Your task to perform on an android device: Search for hotels in Miami Image 0: 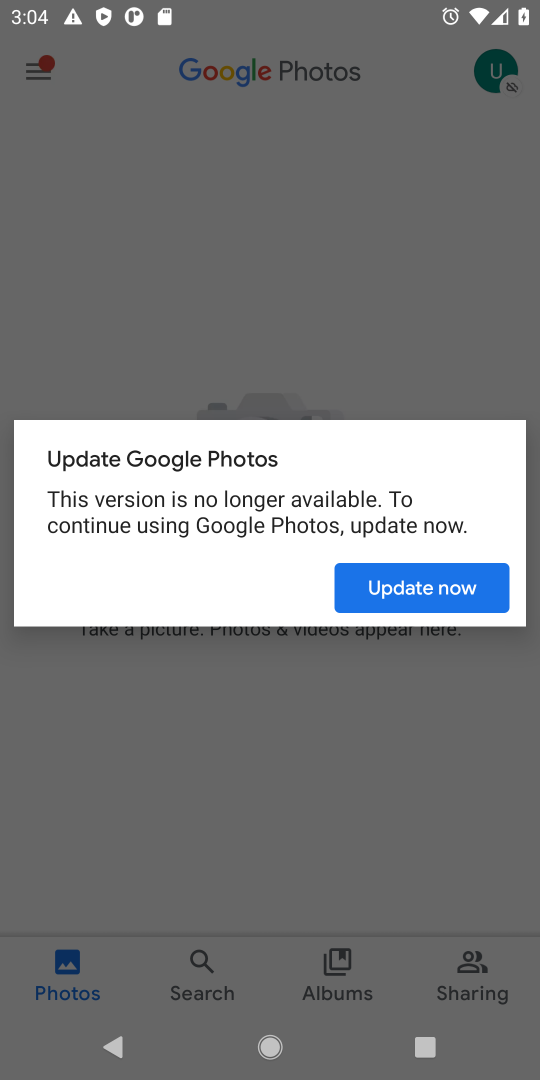
Step 0: press home button
Your task to perform on an android device: Search for hotels in Miami Image 1: 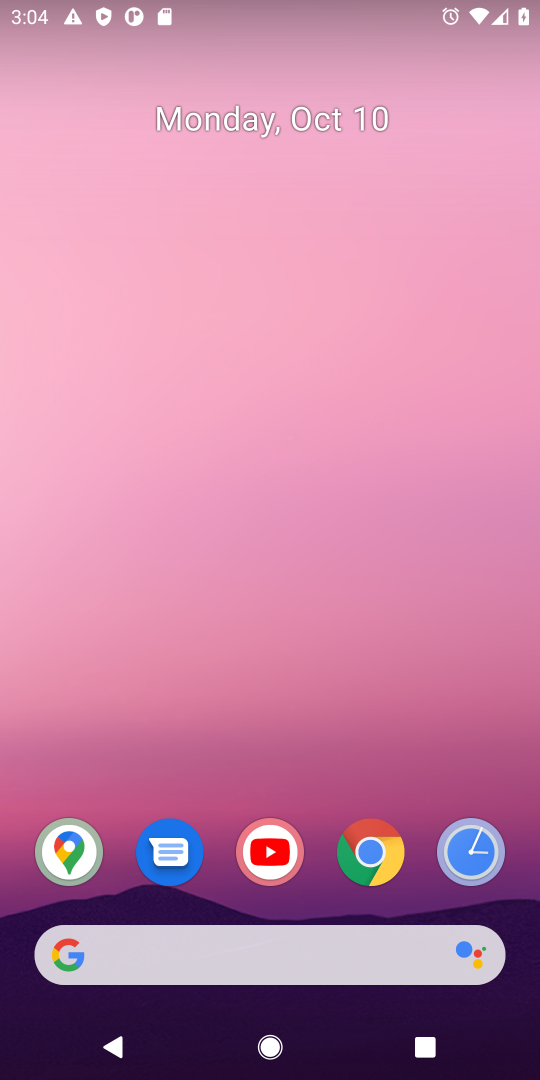
Step 1: click (242, 959)
Your task to perform on an android device: Search for hotels in Miami Image 2: 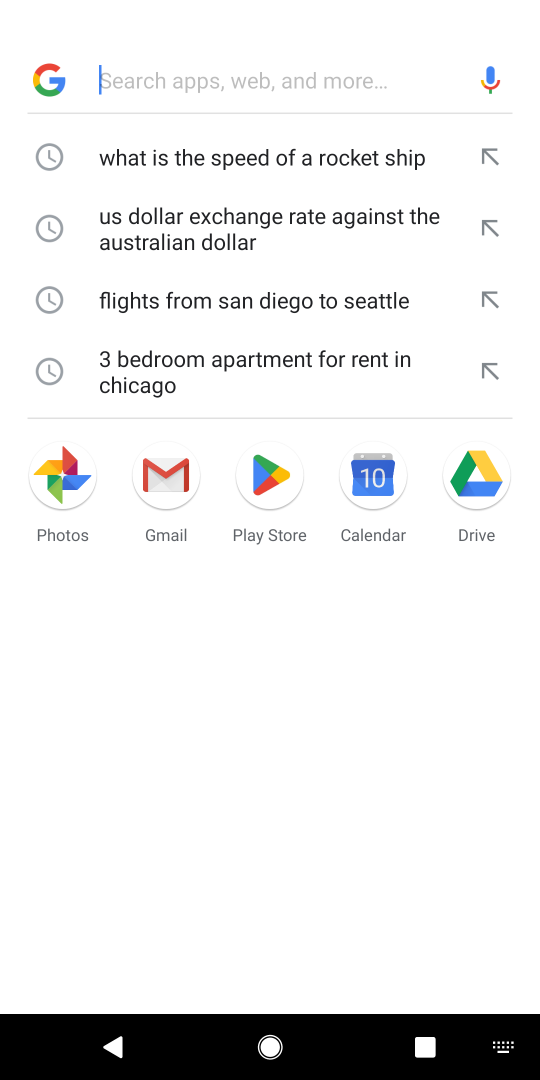
Step 2: type "hotels in Miami"
Your task to perform on an android device: Search for hotels in Miami Image 3: 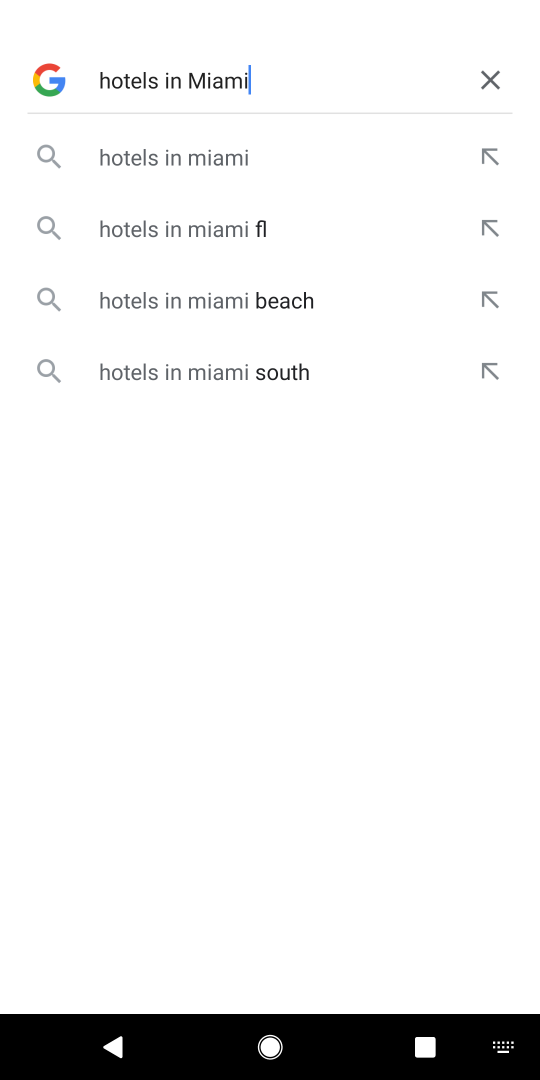
Step 3: type ""
Your task to perform on an android device: Search for hotels in Miami Image 4: 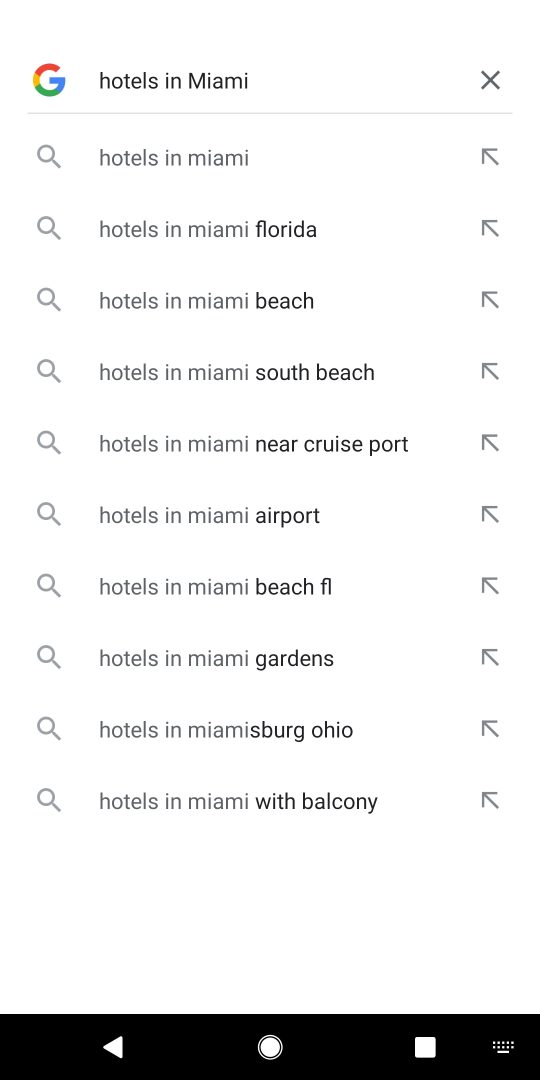
Step 4: click (191, 143)
Your task to perform on an android device: Search for hotels in Miami Image 5: 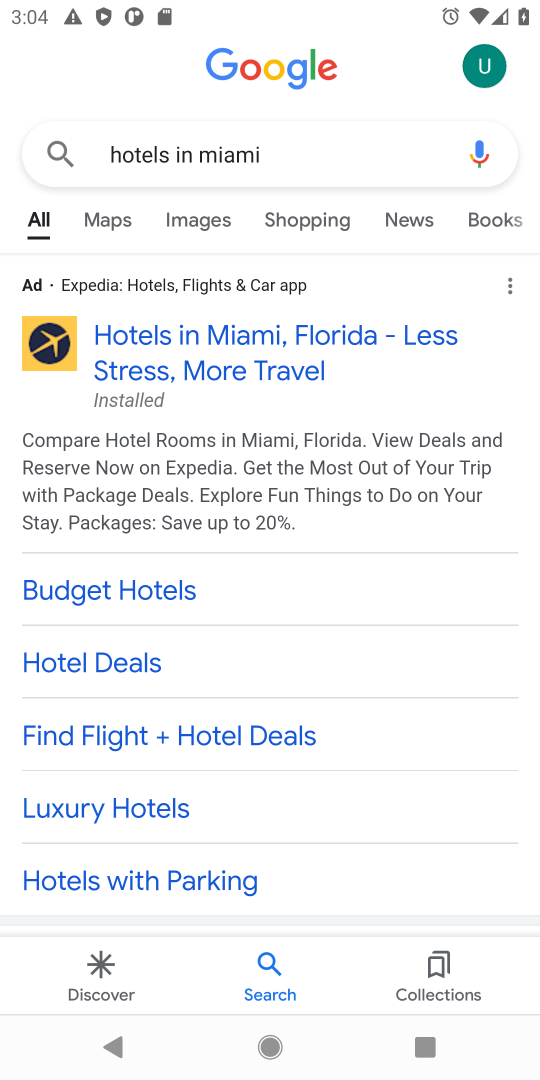
Step 5: drag from (184, 690) to (310, 189)
Your task to perform on an android device: Search for hotels in Miami Image 6: 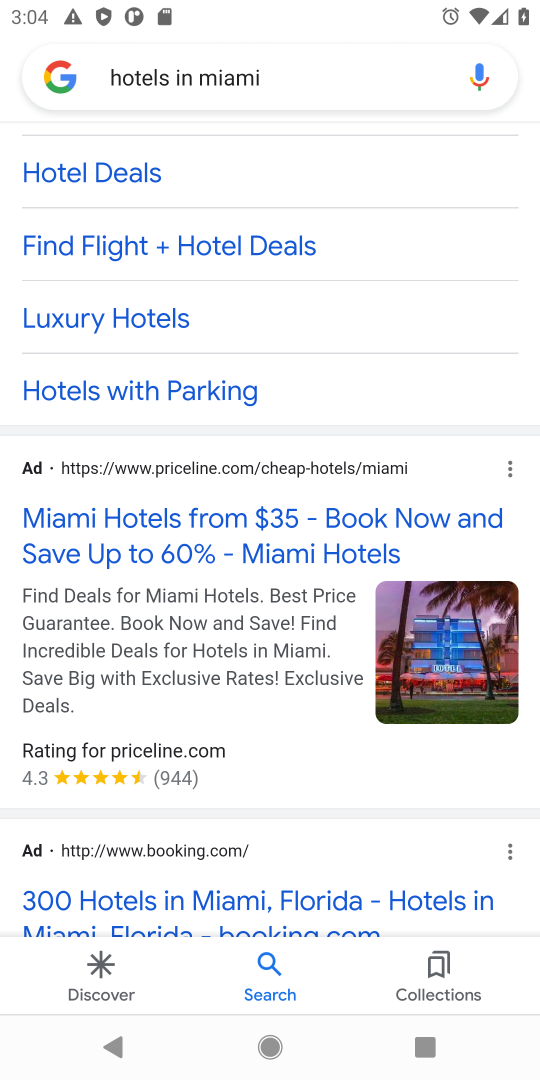
Step 6: drag from (235, 763) to (294, 374)
Your task to perform on an android device: Search for hotels in Miami Image 7: 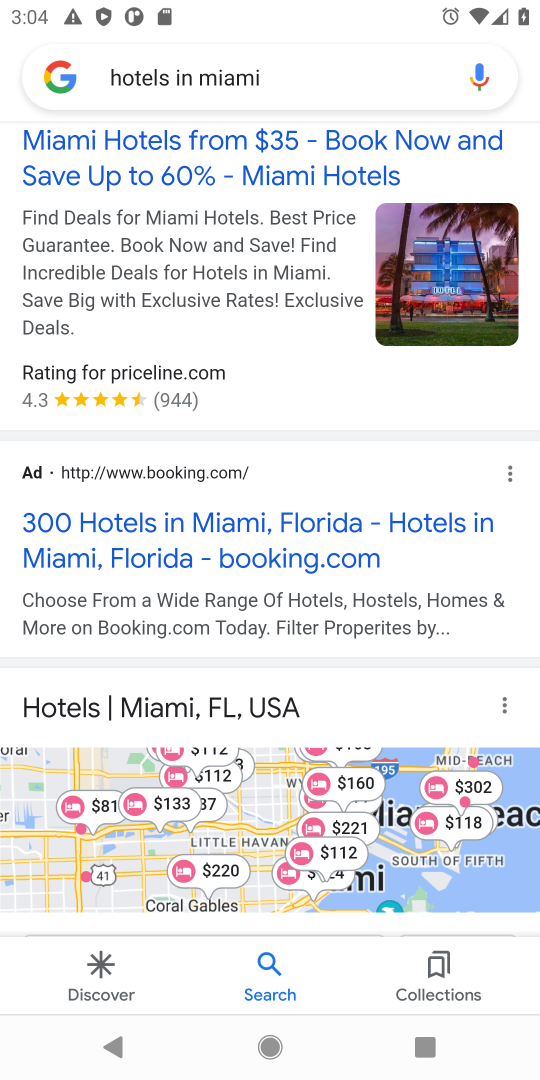
Step 7: drag from (250, 713) to (255, 235)
Your task to perform on an android device: Search for hotels in Miami Image 8: 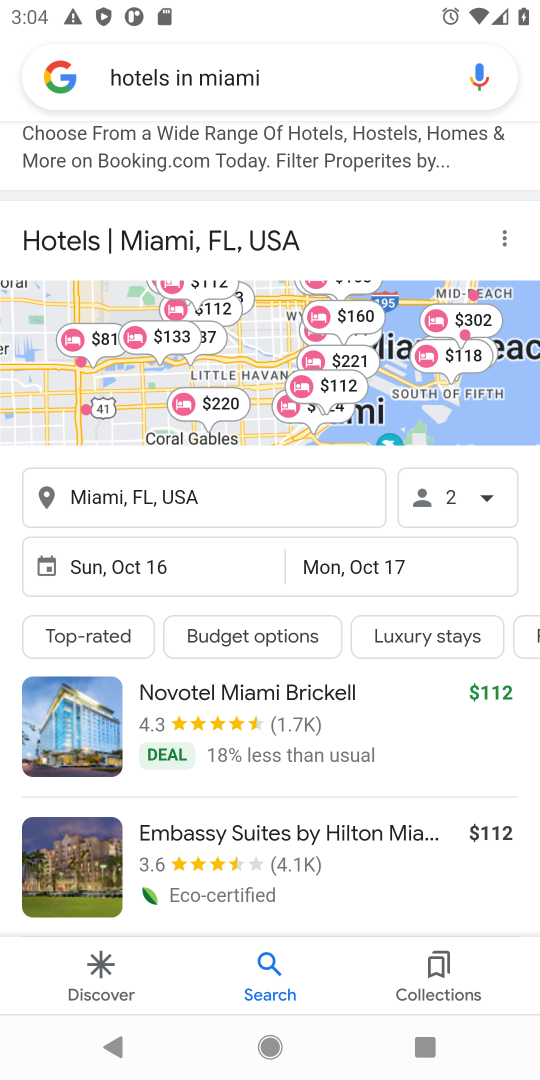
Step 8: drag from (222, 687) to (224, 270)
Your task to perform on an android device: Search for hotels in Miami Image 9: 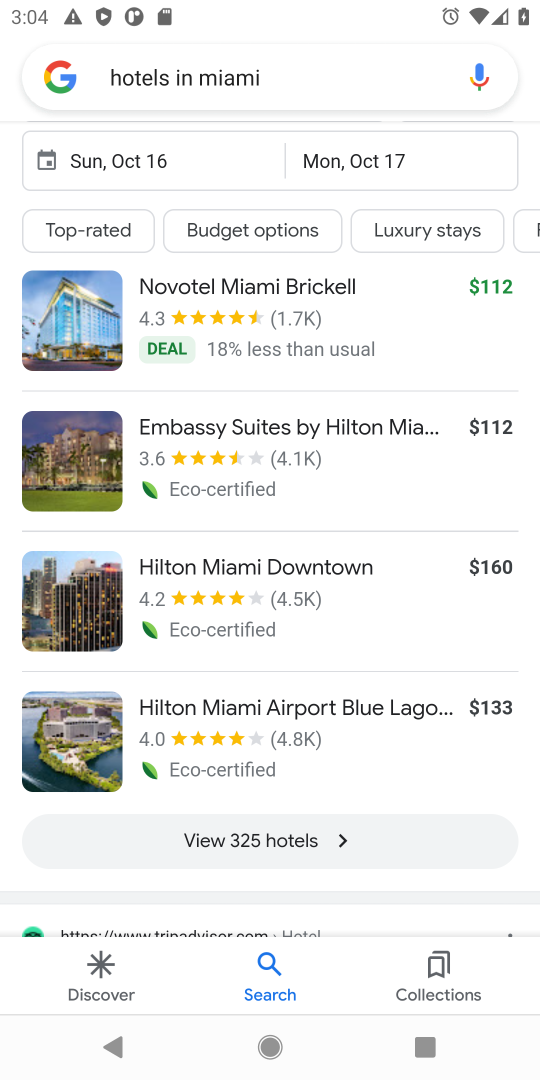
Step 9: drag from (227, 468) to (234, 336)
Your task to perform on an android device: Search for hotels in Miami Image 10: 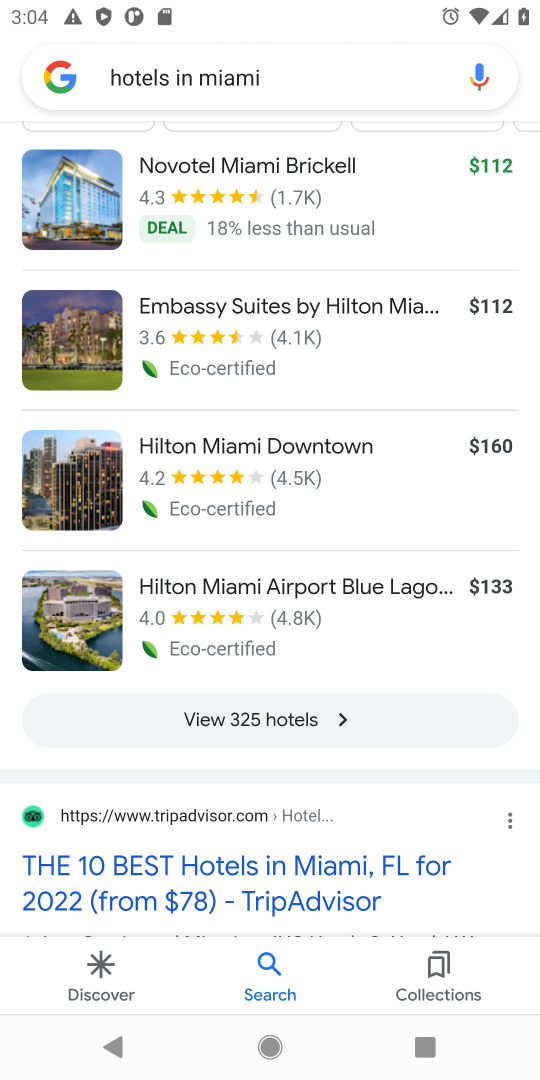
Step 10: drag from (238, 761) to (316, 244)
Your task to perform on an android device: Search for hotels in Miami Image 11: 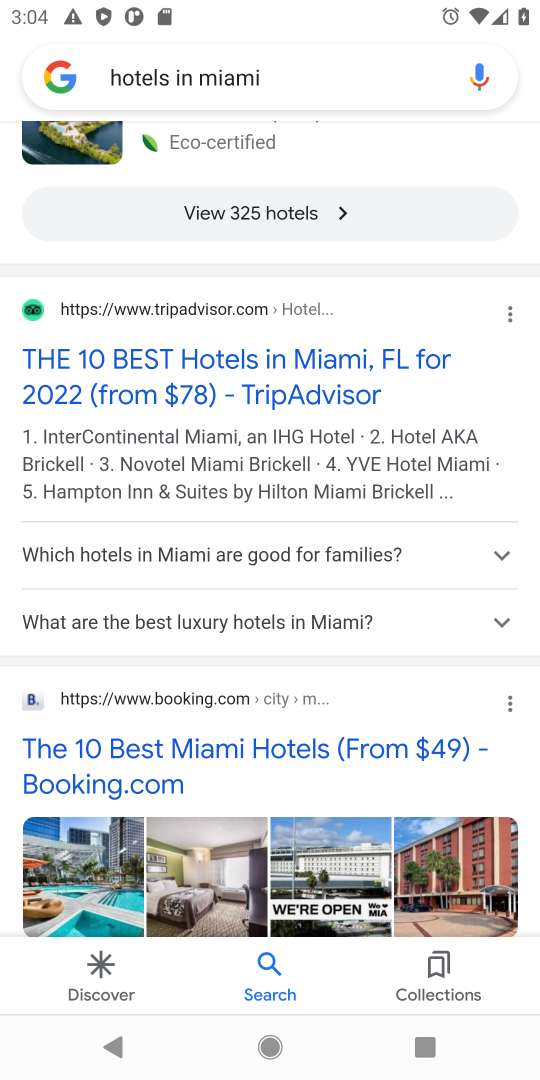
Step 11: click (283, 390)
Your task to perform on an android device: Search for hotels in Miami Image 12: 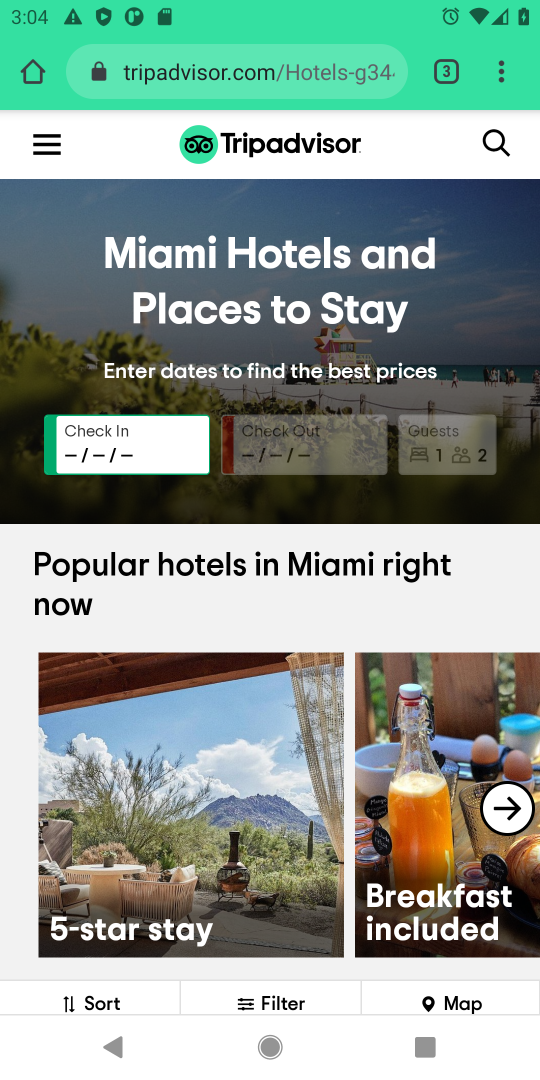
Step 12: task complete